Your task to perform on an android device: open chrome and create a bookmark for the current page Image 0: 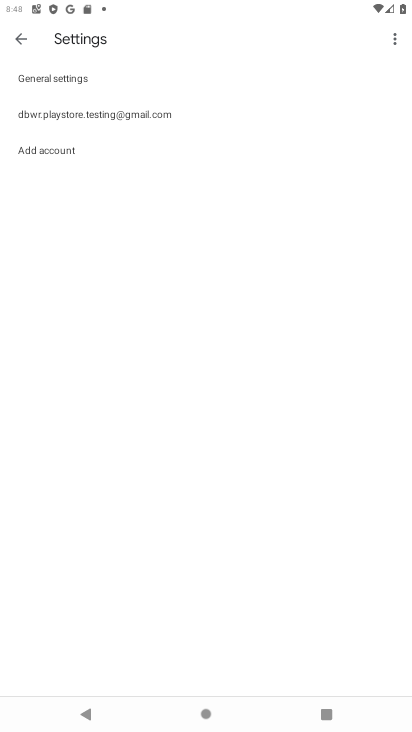
Step 0: press home button
Your task to perform on an android device: open chrome and create a bookmark for the current page Image 1: 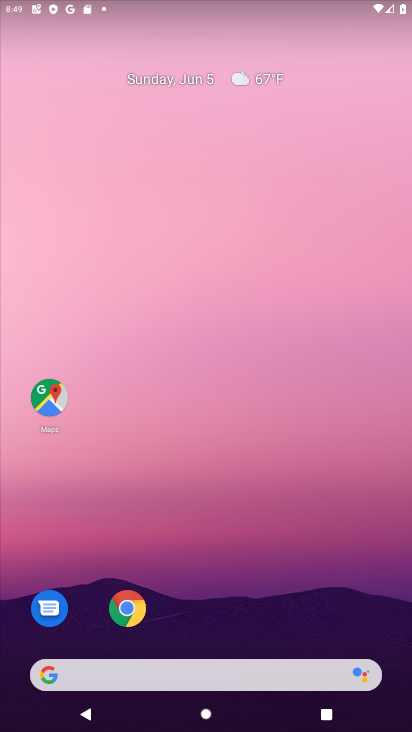
Step 1: click (116, 616)
Your task to perform on an android device: open chrome and create a bookmark for the current page Image 2: 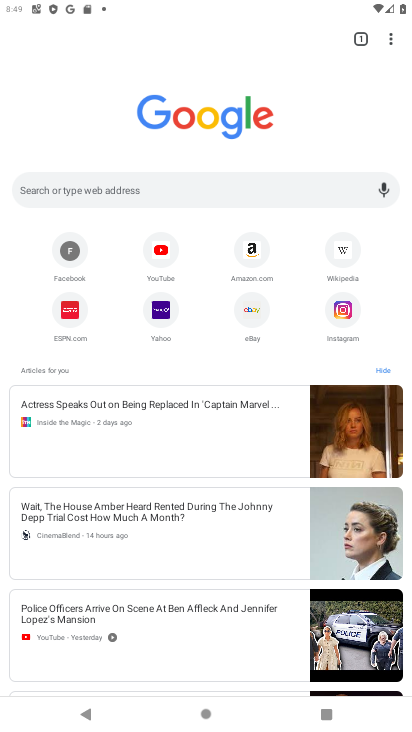
Step 2: click (387, 36)
Your task to perform on an android device: open chrome and create a bookmark for the current page Image 3: 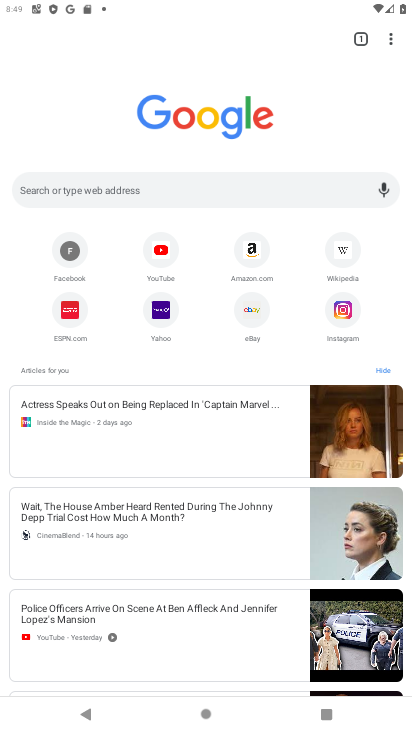
Step 3: click (390, 35)
Your task to perform on an android device: open chrome and create a bookmark for the current page Image 4: 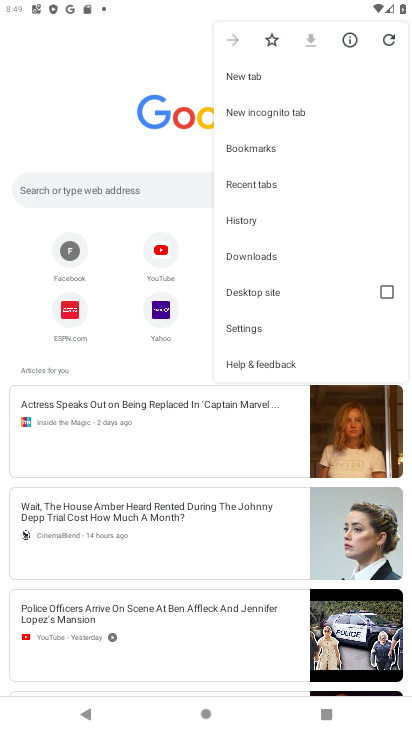
Step 4: click (271, 37)
Your task to perform on an android device: open chrome and create a bookmark for the current page Image 5: 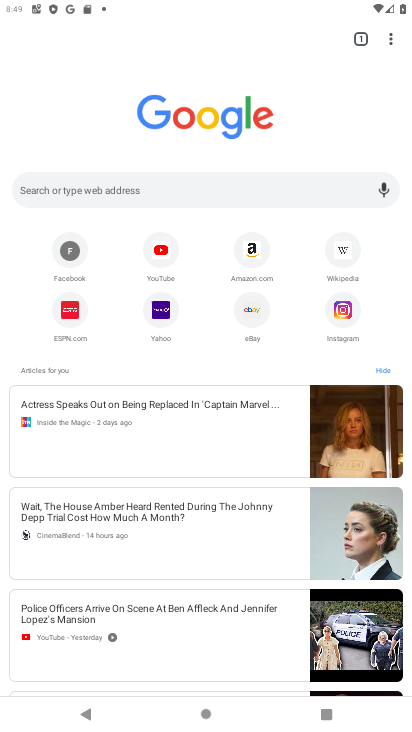
Step 5: task complete